Your task to perform on an android device: toggle notifications settings in the gmail app Image 0: 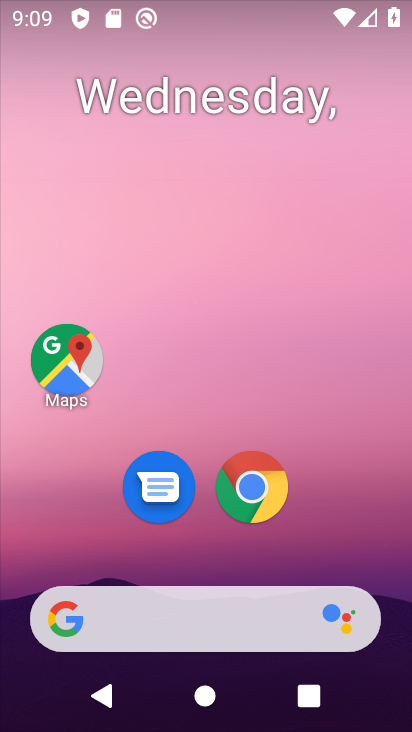
Step 0: drag from (90, 549) to (273, 246)
Your task to perform on an android device: toggle notifications settings in the gmail app Image 1: 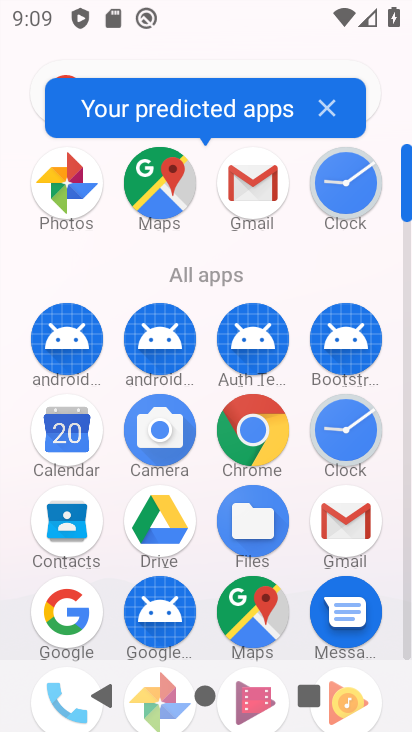
Step 1: click (327, 523)
Your task to perform on an android device: toggle notifications settings in the gmail app Image 2: 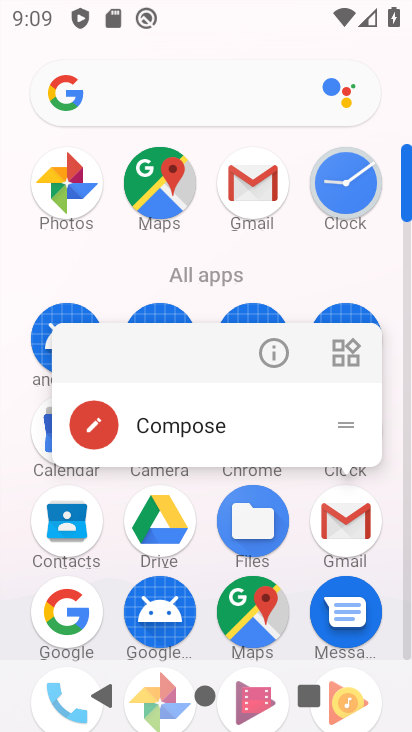
Step 2: click (275, 347)
Your task to perform on an android device: toggle notifications settings in the gmail app Image 3: 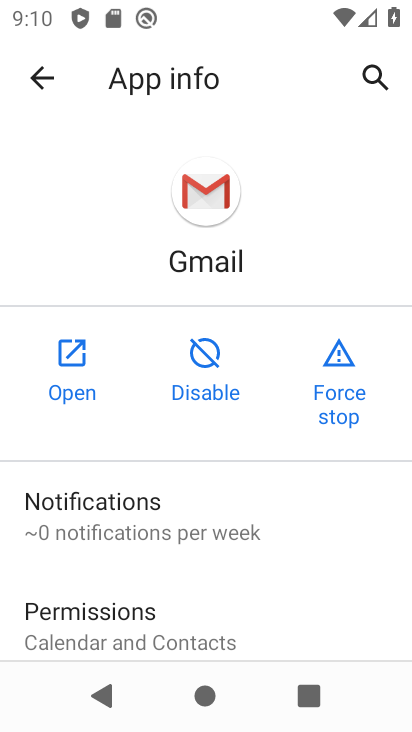
Step 3: drag from (189, 597) to (291, 263)
Your task to perform on an android device: toggle notifications settings in the gmail app Image 4: 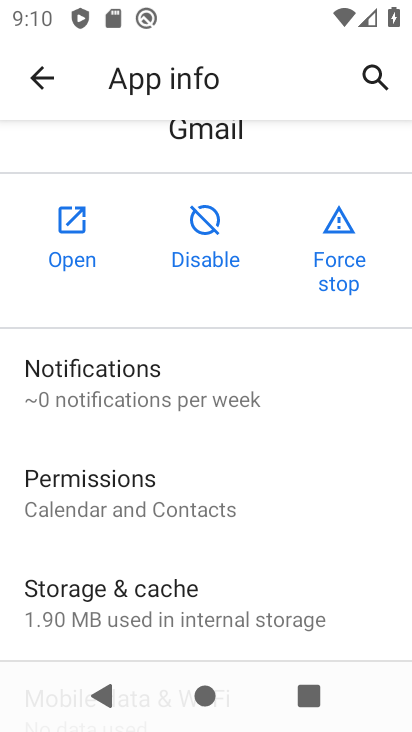
Step 4: drag from (201, 629) to (289, 358)
Your task to perform on an android device: toggle notifications settings in the gmail app Image 5: 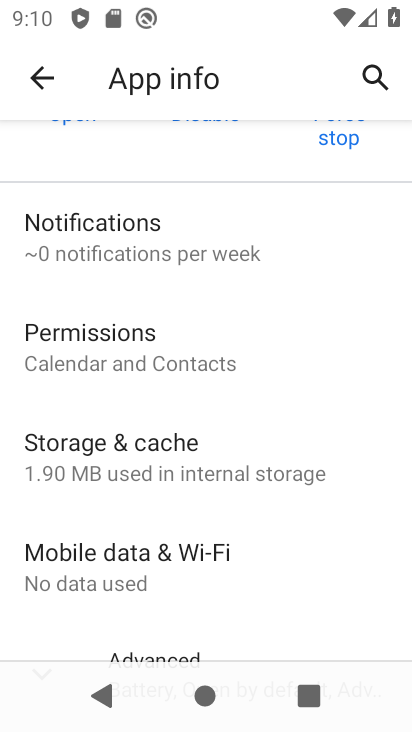
Step 5: drag from (176, 580) to (280, 411)
Your task to perform on an android device: toggle notifications settings in the gmail app Image 6: 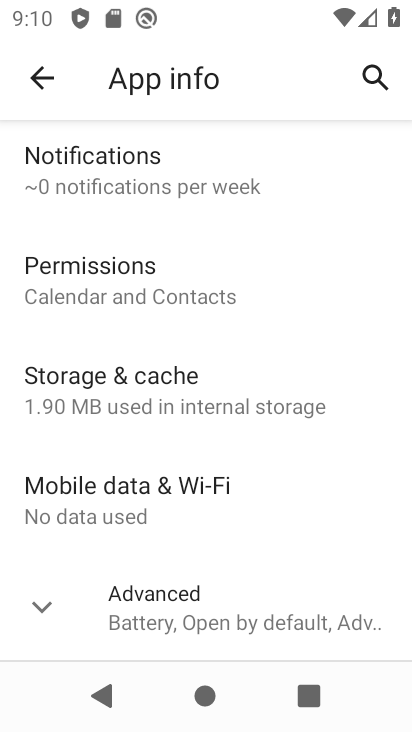
Step 6: drag from (226, 321) to (179, 664)
Your task to perform on an android device: toggle notifications settings in the gmail app Image 7: 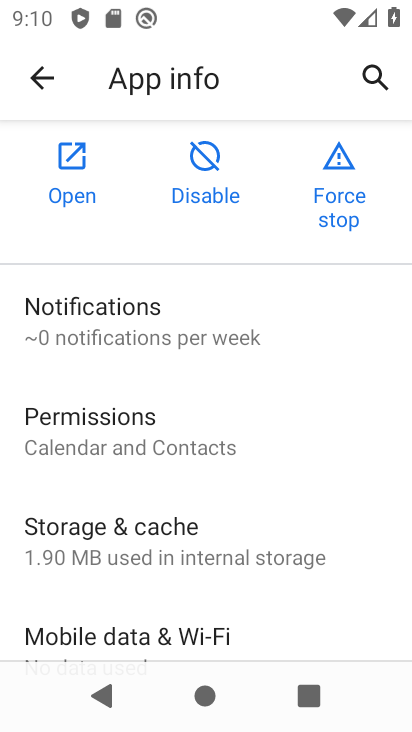
Step 7: click (144, 328)
Your task to perform on an android device: toggle notifications settings in the gmail app Image 8: 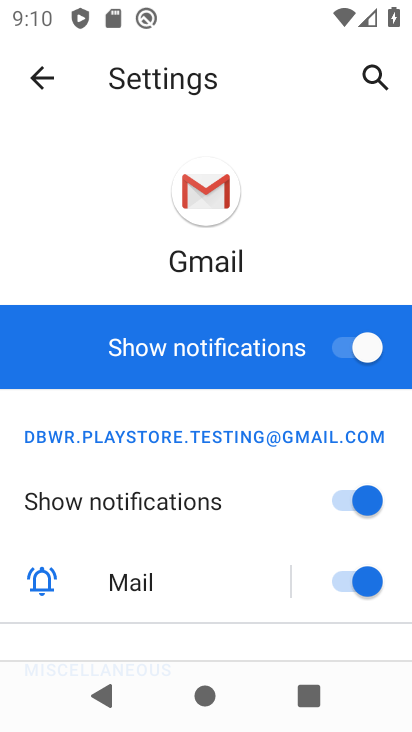
Step 8: click (367, 342)
Your task to perform on an android device: toggle notifications settings in the gmail app Image 9: 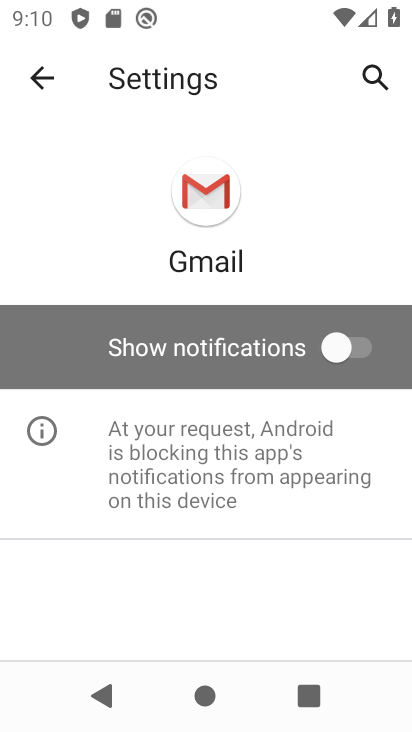
Step 9: task complete